Your task to perform on an android device: Play the last video I watched on Youtube Image 0: 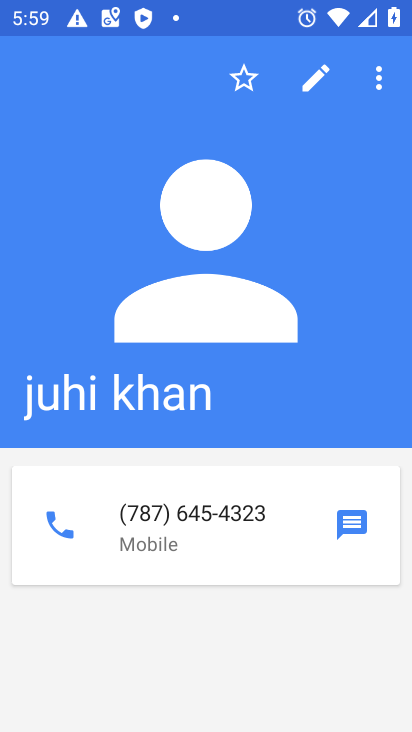
Step 0: press home button
Your task to perform on an android device: Play the last video I watched on Youtube Image 1: 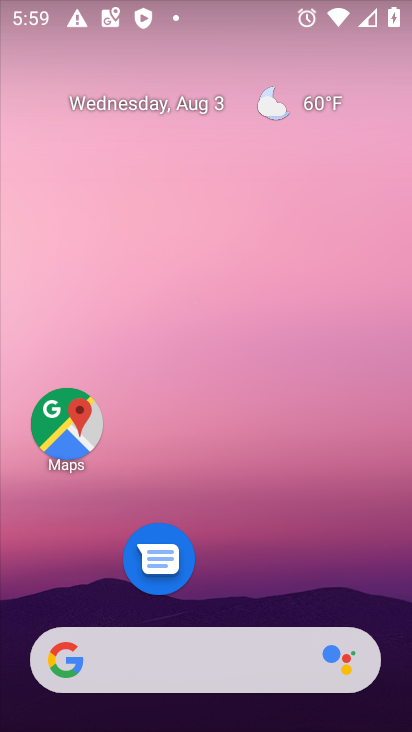
Step 1: drag from (171, 582) to (208, 142)
Your task to perform on an android device: Play the last video I watched on Youtube Image 2: 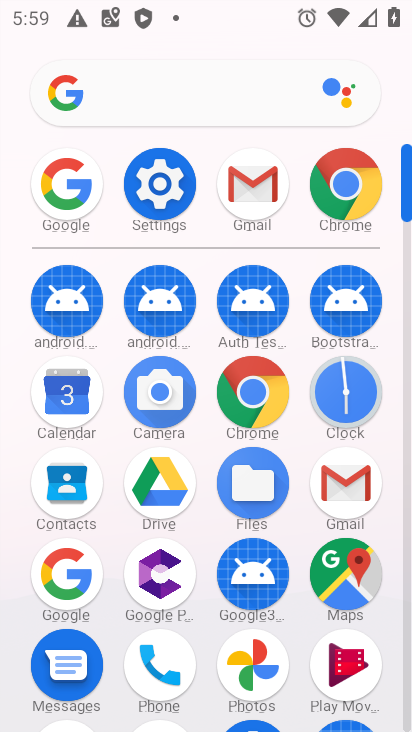
Step 2: drag from (203, 715) to (228, 271)
Your task to perform on an android device: Play the last video I watched on Youtube Image 3: 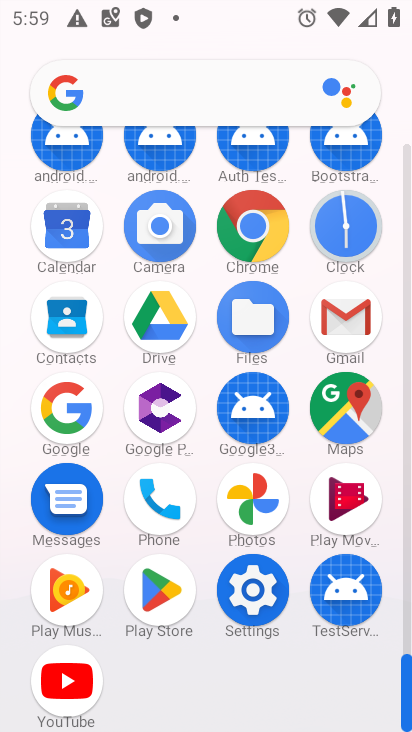
Step 3: click (68, 692)
Your task to perform on an android device: Play the last video I watched on Youtube Image 4: 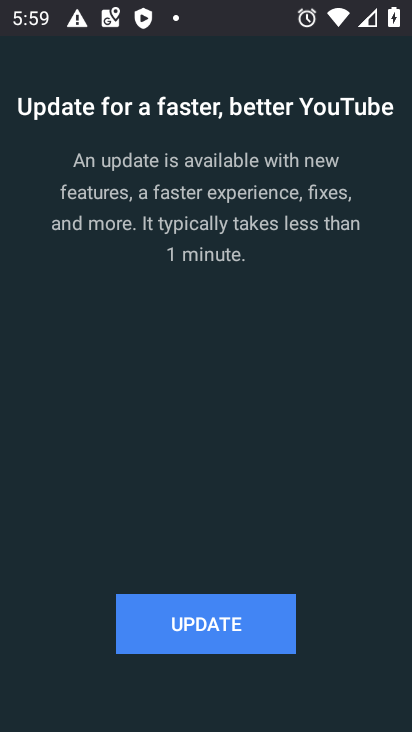
Step 4: press home button
Your task to perform on an android device: Play the last video I watched on Youtube Image 5: 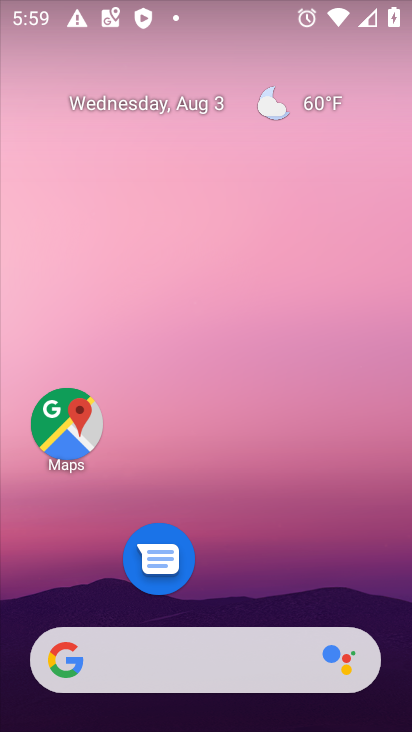
Step 5: drag from (258, 620) to (283, 256)
Your task to perform on an android device: Play the last video I watched on Youtube Image 6: 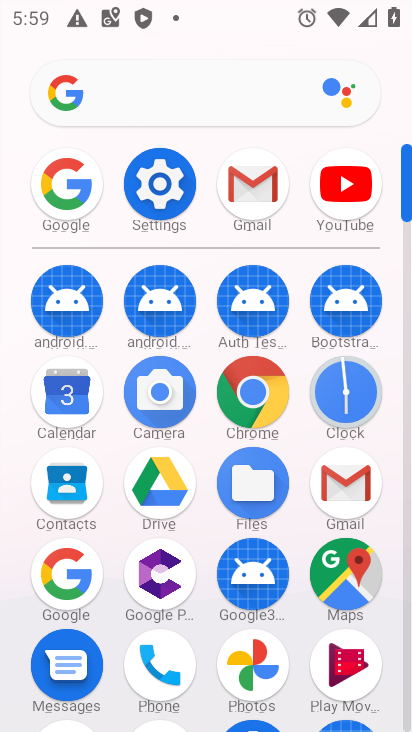
Step 6: drag from (299, 699) to (305, 314)
Your task to perform on an android device: Play the last video I watched on Youtube Image 7: 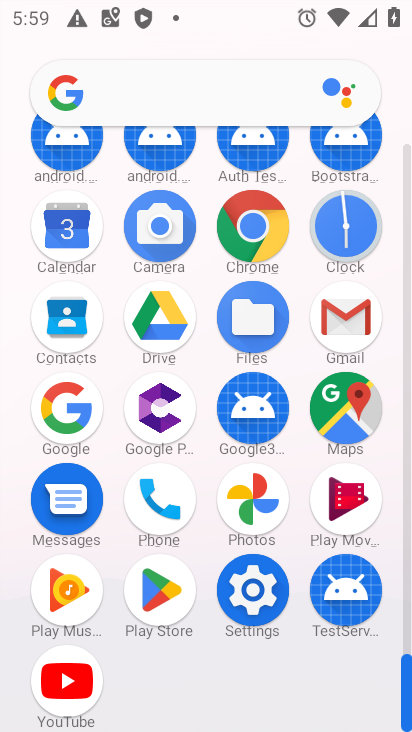
Step 7: click (78, 677)
Your task to perform on an android device: Play the last video I watched on Youtube Image 8: 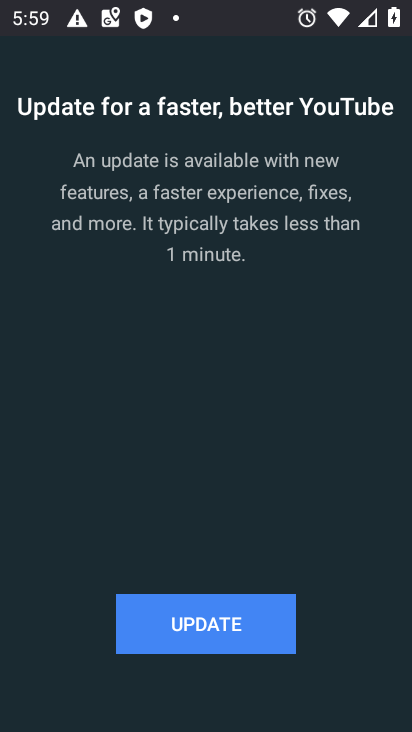
Step 8: click (207, 629)
Your task to perform on an android device: Play the last video I watched on Youtube Image 9: 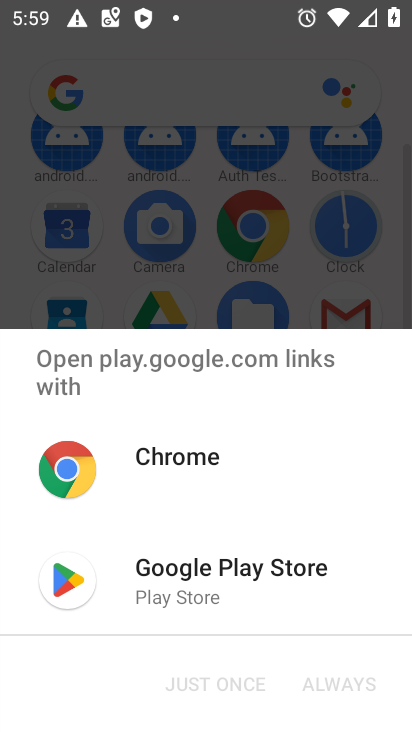
Step 9: click (163, 586)
Your task to perform on an android device: Play the last video I watched on Youtube Image 10: 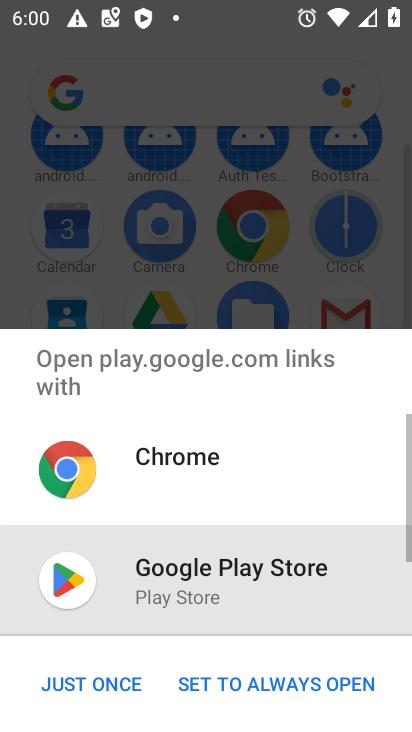
Step 10: click (120, 684)
Your task to perform on an android device: Play the last video I watched on Youtube Image 11: 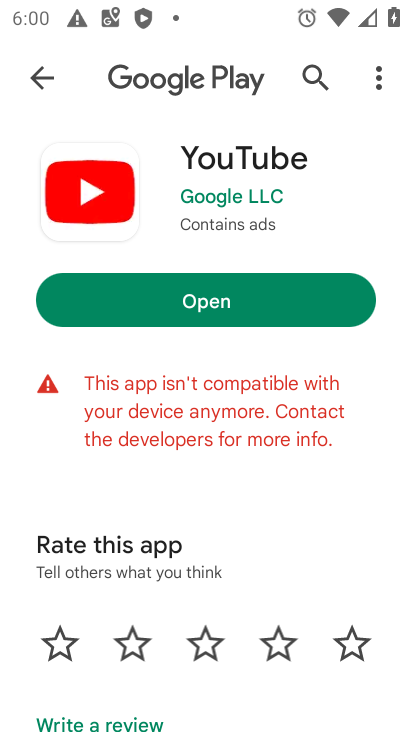
Step 11: click (207, 303)
Your task to perform on an android device: Play the last video I watched on Youtube Image 12: 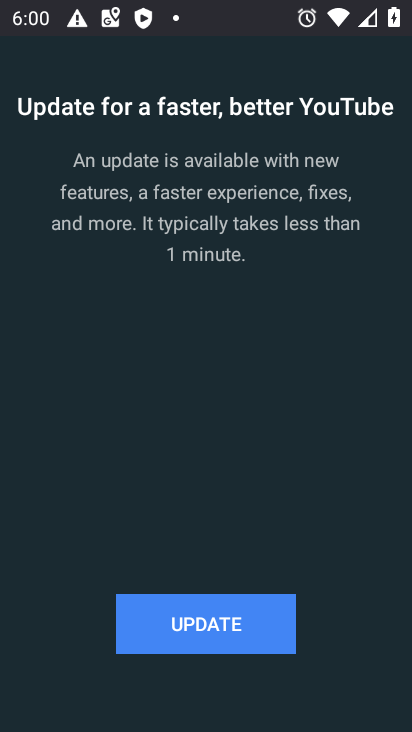
Step 12: click (250, 624)
Your task to perform on an android device: Play the last video I watched on Youtube Image 13: 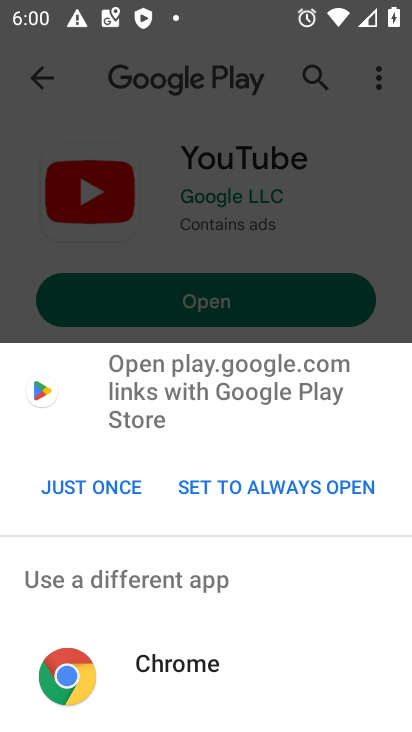
Step 13: click (116, 479)
Your task to perform on an android device: Play the last video I watched on Youtube Image 14: 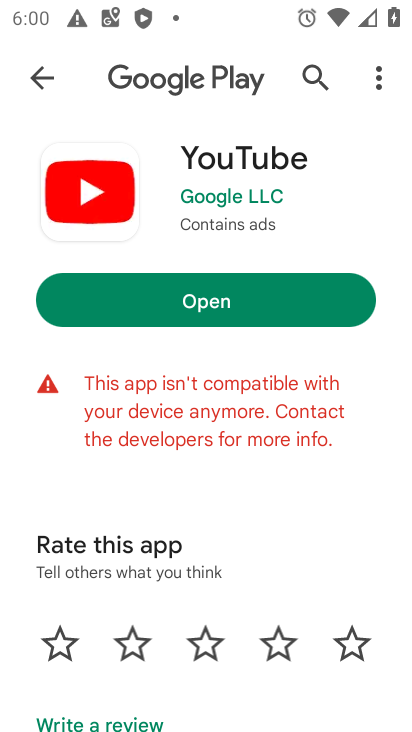
Step 14: task complete